Your task to perform on an android device: change text size in settings app Image 0: 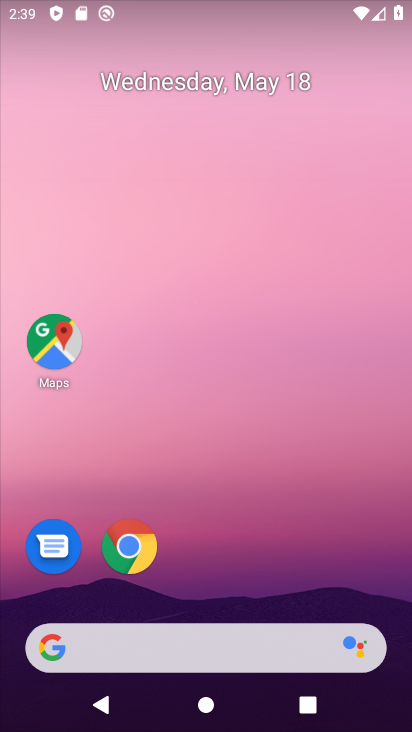
Step 0: drag from (191, 565) to (272, 159)
Your task to perform on an android device: change text size in settings app Image 1: 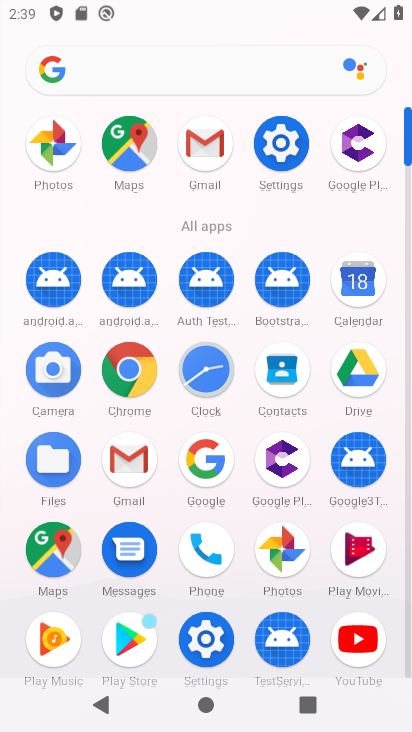
Step 1: drag from (175, 611) to (279, 339)
Your task to perform on an android device: change text size in settings app Image 2: 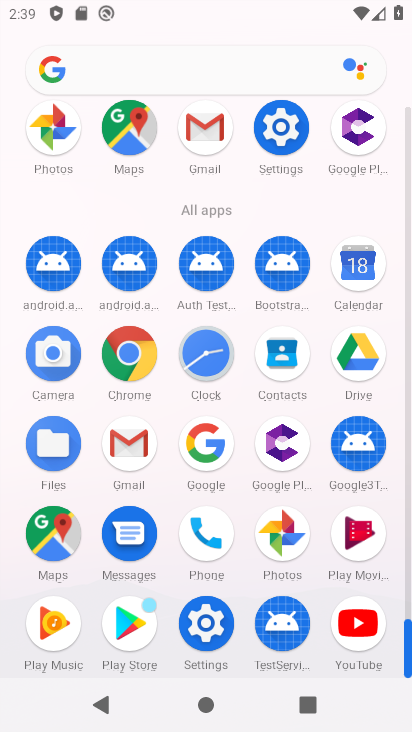
Step 2: click (211, 619)
Your task to perform on an android device: change text size in settings app Image 3: 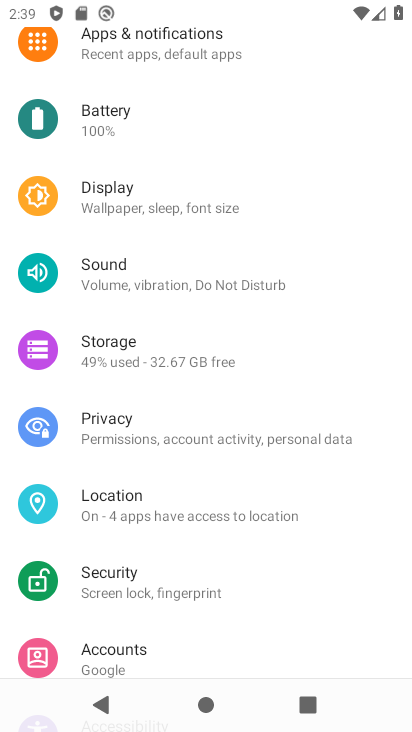
Step 3: drag from (204, 583) to (318, 214)
Your task to perform on an android device: change text size in settings app Image 4: 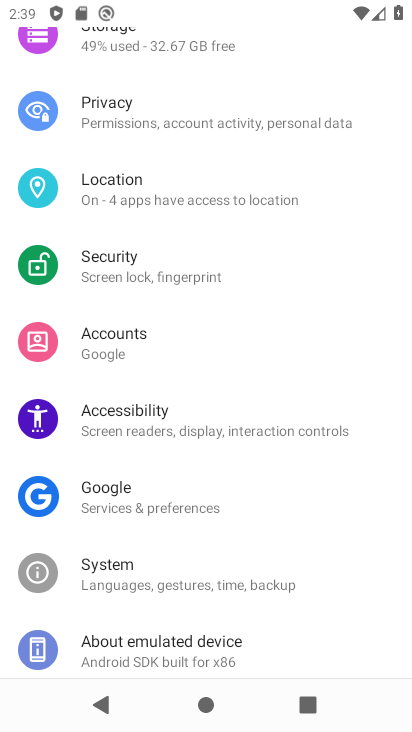
Step 4: drag from (248, 172) to (206, 551)
Your task to perform on an android device: change text size in settings app Image 5: 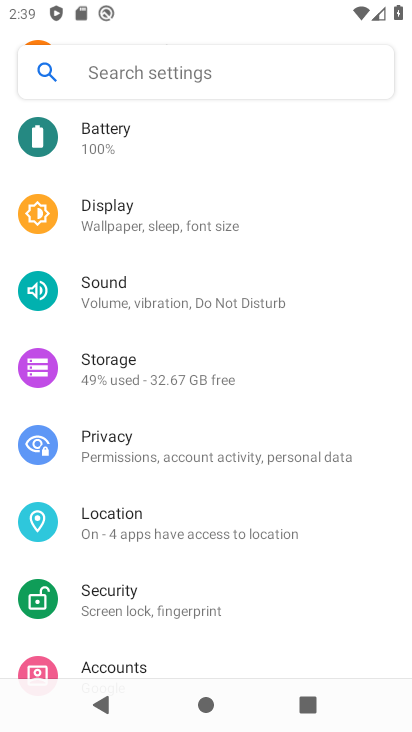
Step 5: click (208, 226)
Your task to perform on an android device: change text size in settings app Image 6: 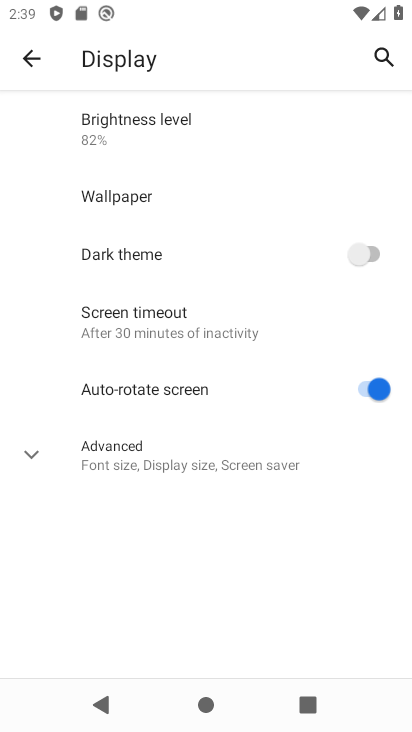
Step 6: click (191, 475)
Your task to perform on an android device: change text size in settings app Image 7: 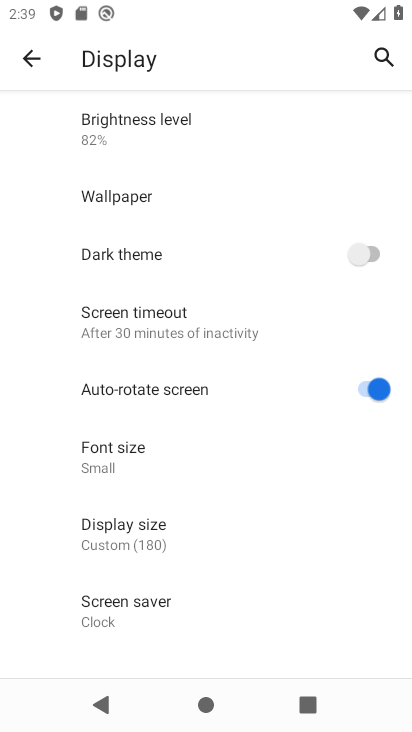
Step 7: click (195, 453)
Your task to perform on an android device: change text size in settings app Image 8: 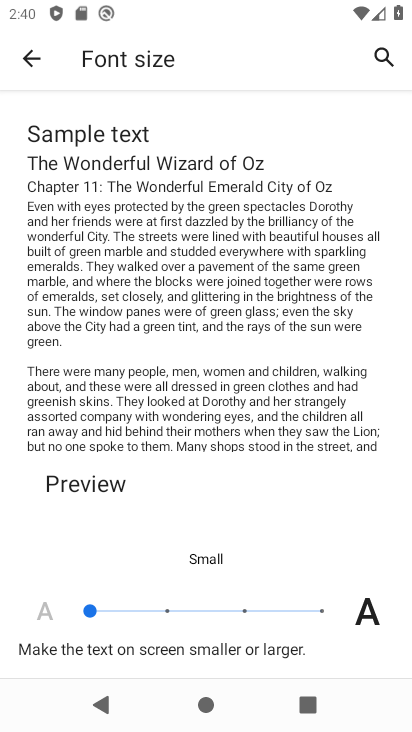
Step 8: click (173, 606)
Your task to perform on an android device: change text size in settings app Image 9: 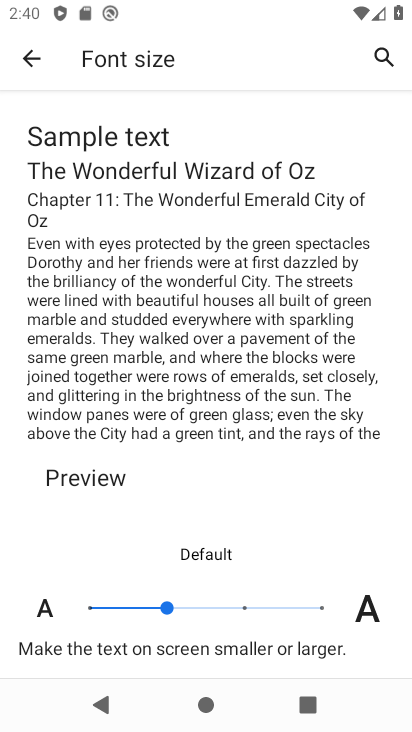
Step 9: task complete